Your task to perform on an android device: open app "Upside-Cash back on gas & food" Image 0: 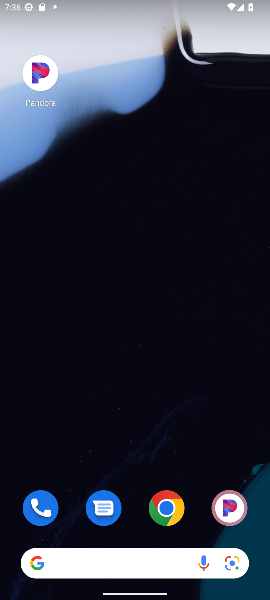
Step 0: drag from (125, 440) to (116, 21)
Your task to perform on an android device: open app "Upside-Cash back on gas & food" Image 1: 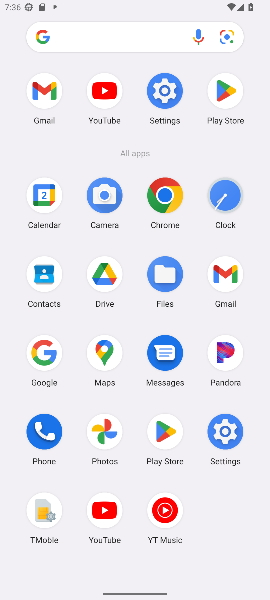
Step 1: click (226, 98)
Your task to perform on an android device: open app "Upside-Cash back on gas & food" Image 2: 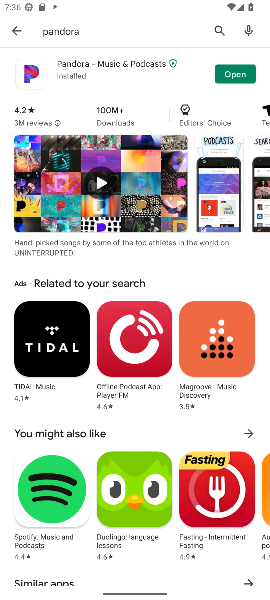
Step 2: click (92, 28)
Your task to perform on an android device: open app "Upside-Cash back on gas & food" Image 3: 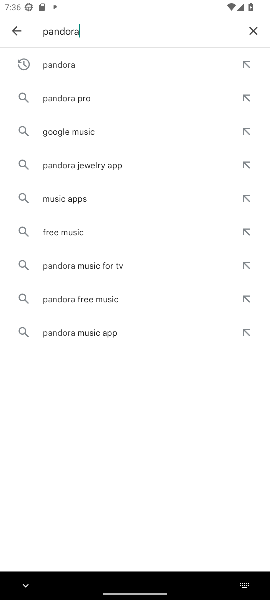
Step 3: click (254, 33)
Your task to perform on an android device: open app "Upside-Cash back on gas & food" Image 4: 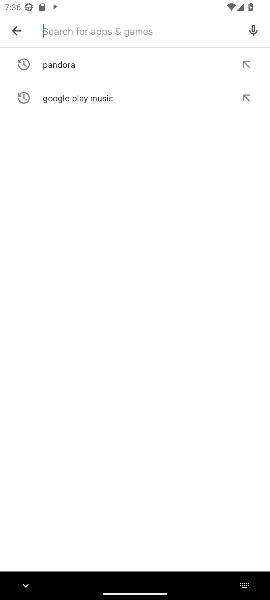
Step 4: type "upside"
Your task to perform on an android device: open app "Upside-Cash back on gas & food" Image 5: 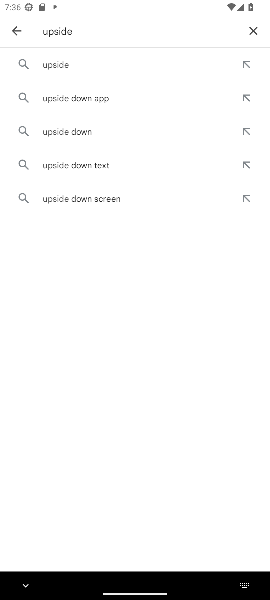
Step 5: click (61, 72)
Your task to perform on an android device: open app "Upside-Cash back on gas & food" Image 6: 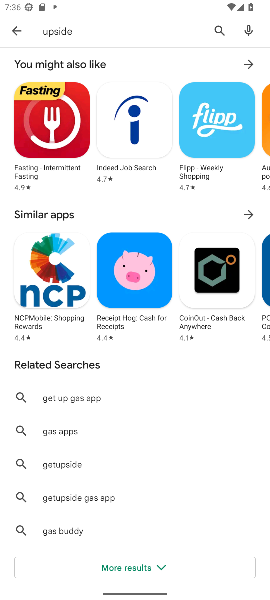
Step 6: click (23, 29)
Your task to perform on an android device: open app "Upside-Cash back on gas & food" Image 7: 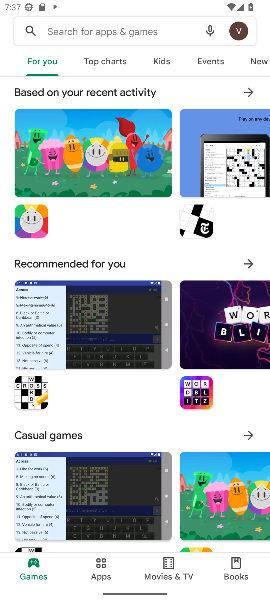
Step 7: click (98, 570)
Your task to perform on an android device: open app "Upside-Cash back on gas & food" Image 8: 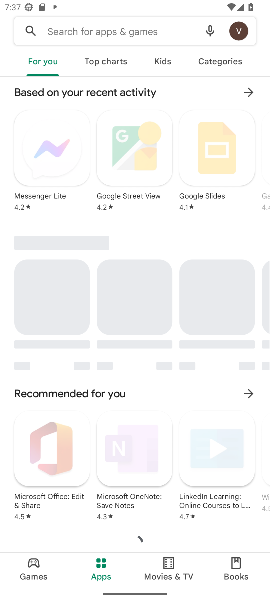
Step 8: click (123, 9)
Your task to perform on an android device: open app "Upside-Cash back on gas & food" Image 9: 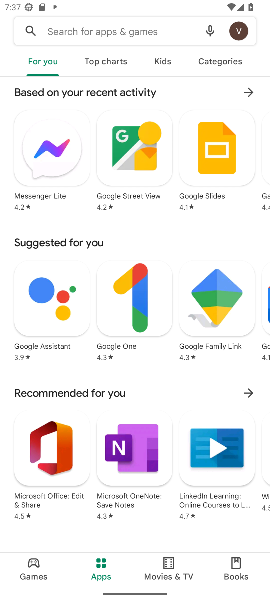
Step 9: click (120, 24)
Your task to perform on an android device: open app "Upside-Cash back on gas & food" Image 10: 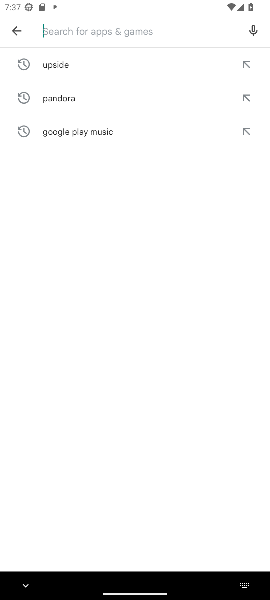
Step 10: type "upside"
Your task to perform on an android device: open app "Upside-Cash back on gas & food" Image 11: 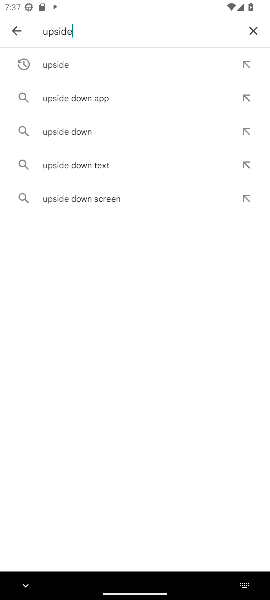
Step 11: click (78, 64)
Your task to perform on an android device: open app "Upside-Cash back on gas & food" Image 12: 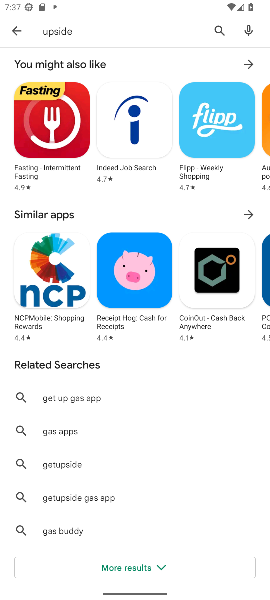
Step 12: task complete